Your task to perform on an android device: turn on notifications settings in the gmail app Image 0: 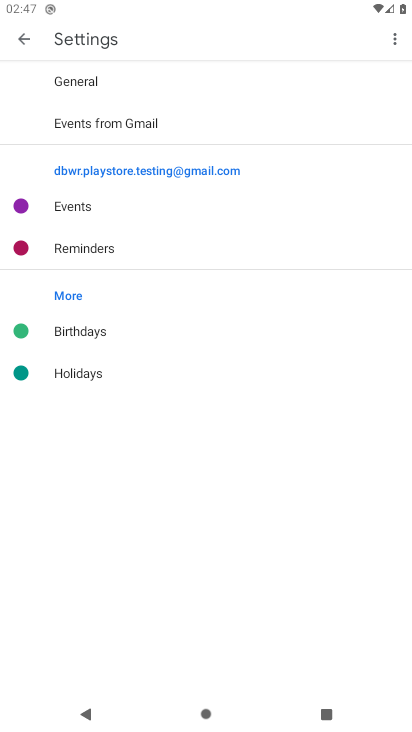
Step 0: press home button
Your task to perform on an android device: turn on notifications settings in the gmail app Image 1: 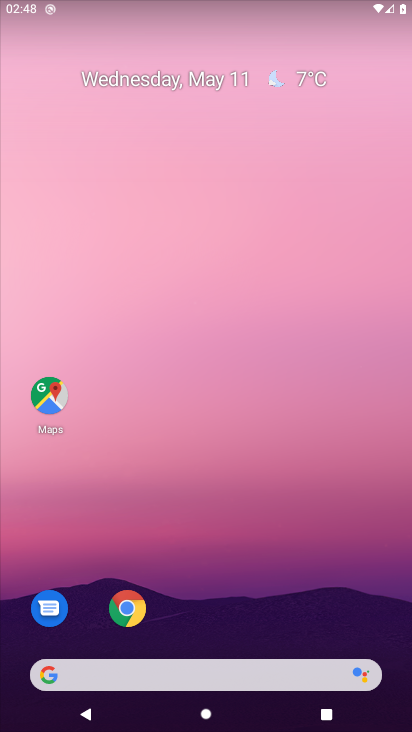
Step 1: drag from (231, 634) to (257, 32)
Your task to perform on an android device: turn on notifications settings in the gmail app Image 2: 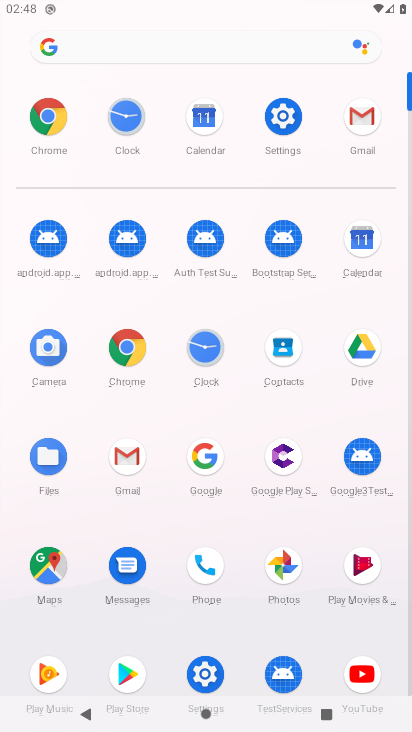
Step 2: click (360, 109)
Your task to perform on an android device: turn on notifications settings in the gmail app Image 3: 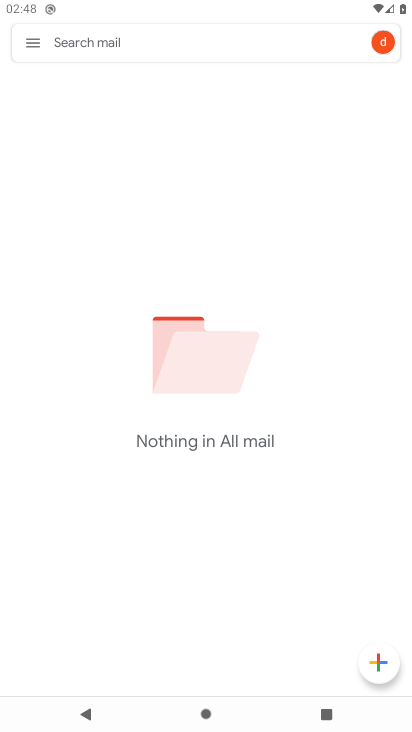
Step 3: click (24, 44)
Your task to perform on an android device: turn on notifications settings in the gmail app Image 4: 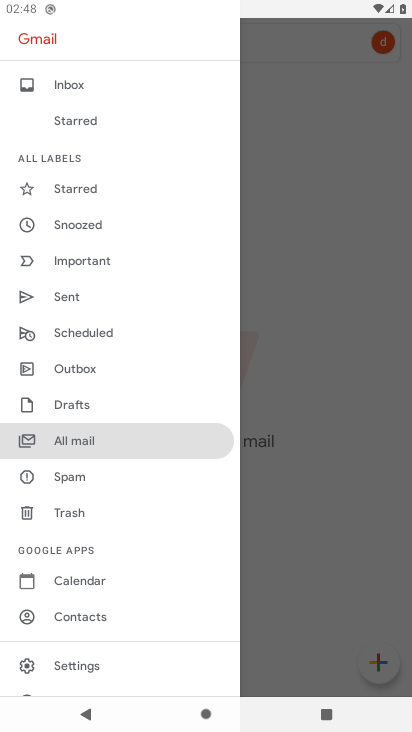
Step 4: click (94, 661)
Your task to perform on an android device: turn on notifications settings in the gmail app Image 5: 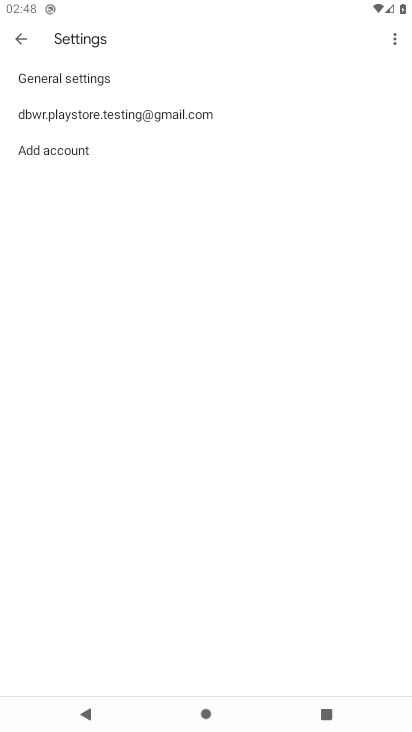
Step 5: click (122, 77)
Your task to perform on an android device: turn on notifications settings in the gmail app Image 6: 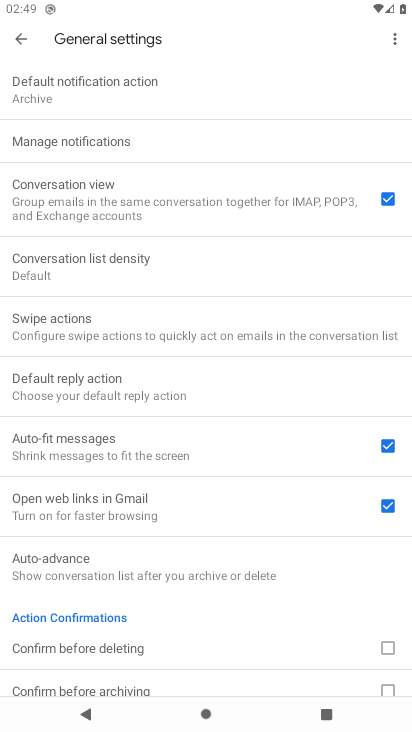
Step 6: click (139, 134)
Your task to perform on an android device: turn on notifications settings in the gmail app Image 7: 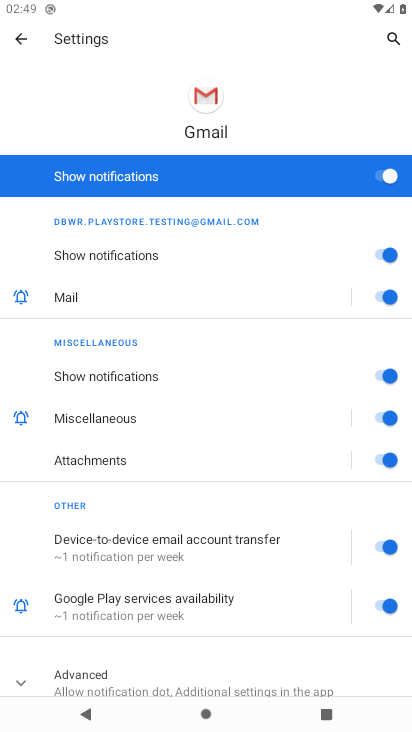
Step 7: task complete